Your task to perform on an android device: turn on wifi Image 0: 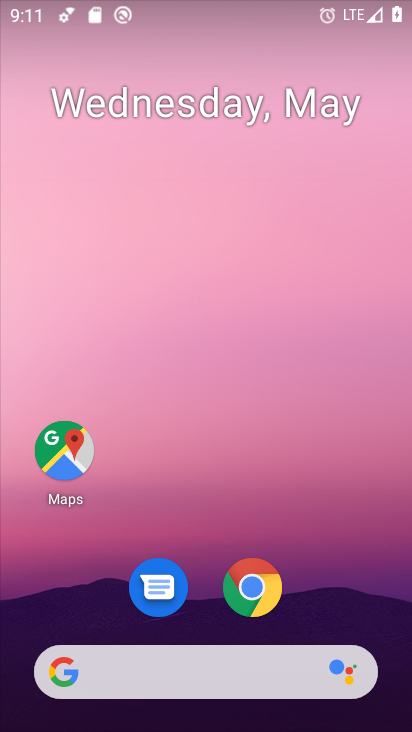
Step 0: drag from (201, 555) to (264, 151)
Your task to perform on an android device: turn on wifi Image 1: 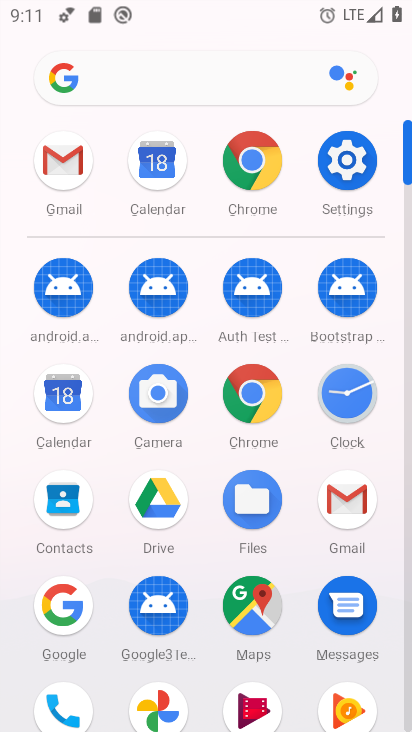
Step 1: click (353, 179)
Your task to perform on an android device: turn on wifi Image 2: 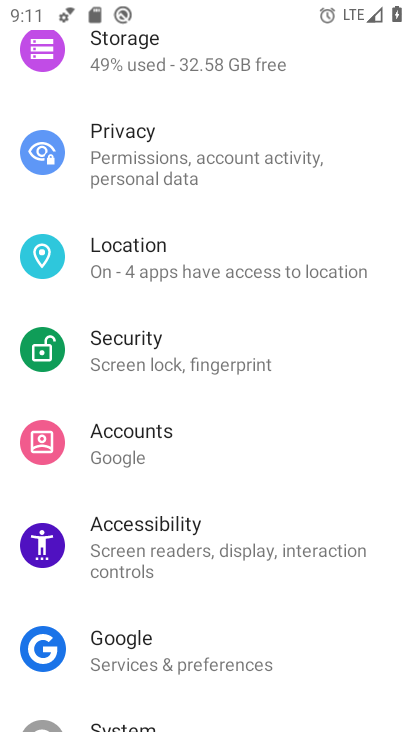
Step 2: drag from (261, 163) to (179, 579)
Your task to perform on an android device: turn on wifi Image 3: 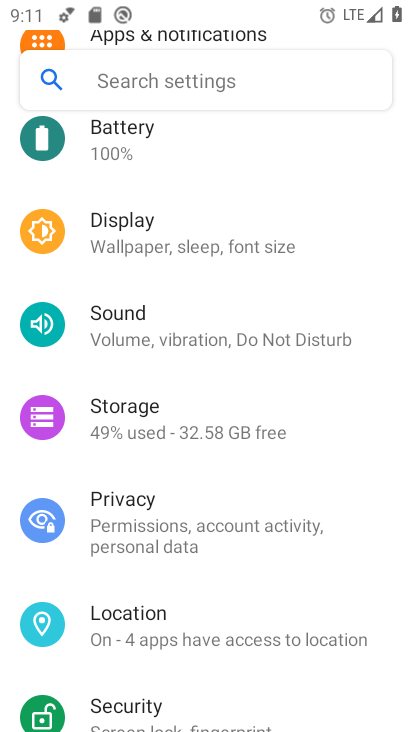
Step 3: drag from (231, 179) to (164, 639)
Your task to perform on an android device: turn on wifi Image 4: 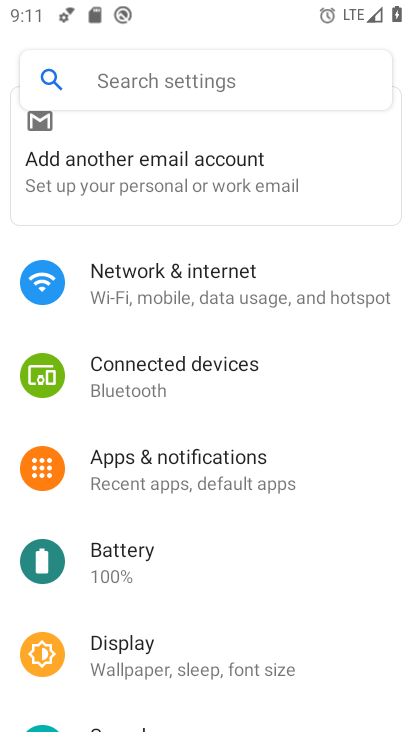
Step 4: drag from (177, 250) to (161, 447)
Your task to perform on an android device: turn on wifi Image 5: 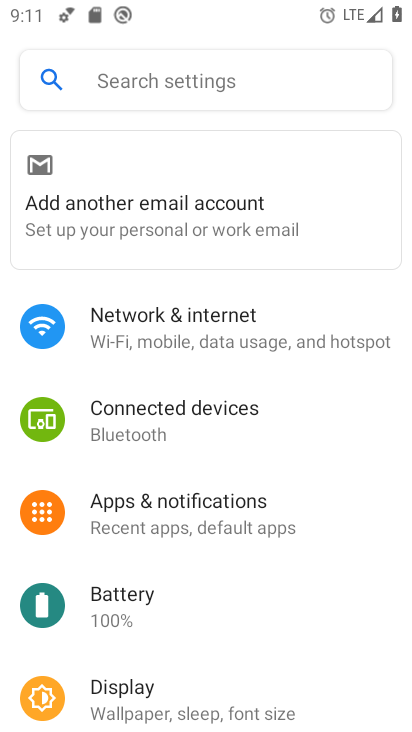
Step 5: click (164, 351)
Your task to perform on an android device: turn on wifi Image 6: 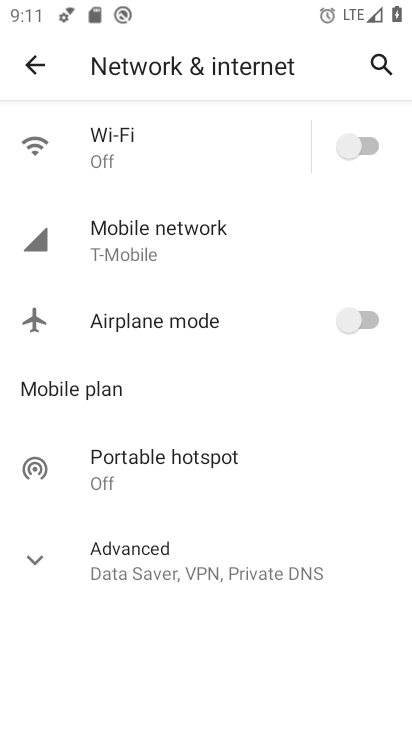
Step 6: click (373, 149)
Your task to perform on an android device: turn on wifi Image 7: 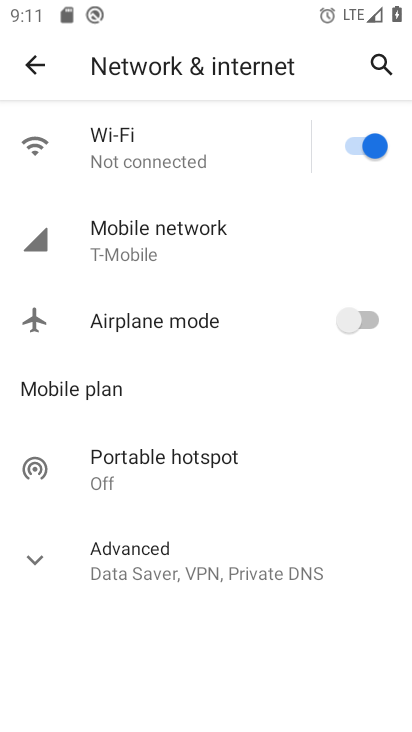
Step 7: task complete